Your task to perform on an android device: What's the weather? Image 0: 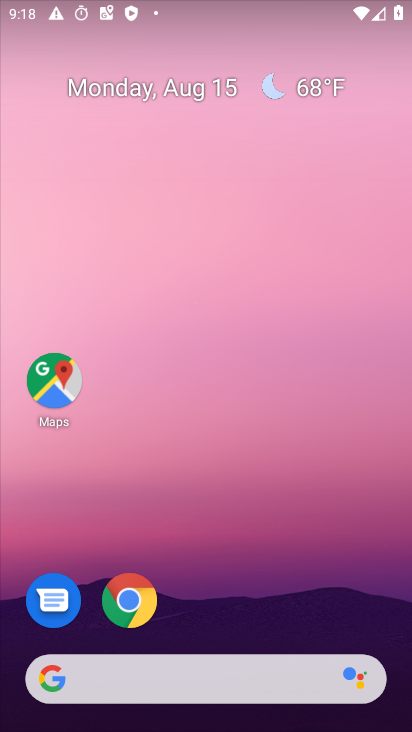
Step 0: click (271, 89)
Your task to perform on an android device: What's the weather? Image 1: 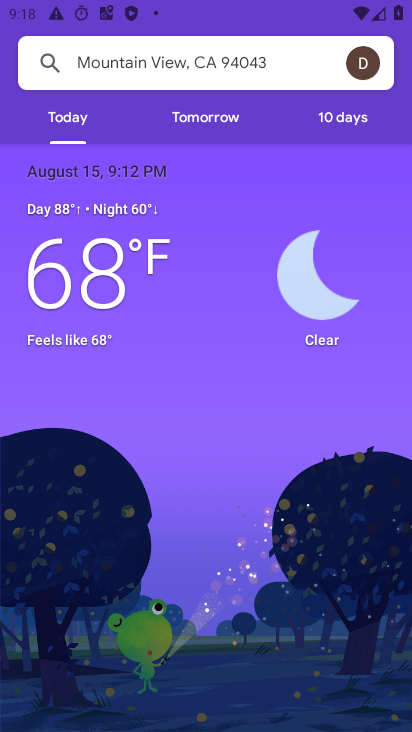
Step 1: task complete